Your task to perform on an android device: turn on the 12-hour format for clock Image 0: 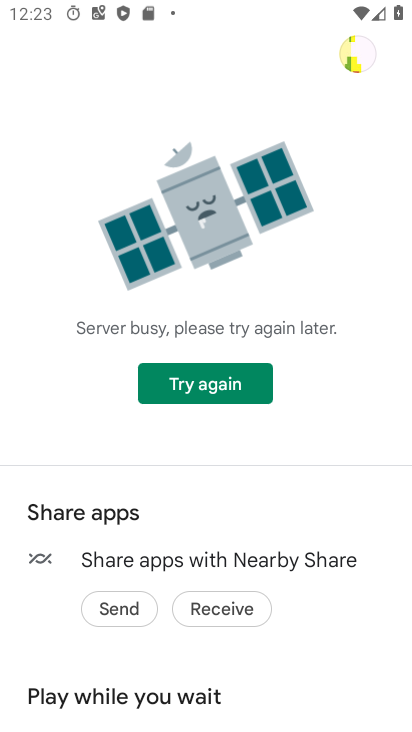
Step 0: press home button
Your task to perform on an android device: turn on the 12-hour format for clock Image 1: 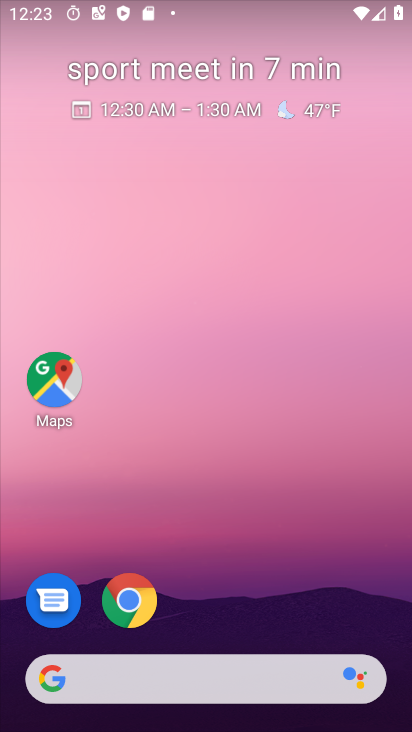
Step 1: drag from (197, 583) to (288, 35)
Your task to perform on an android device: turn on the 12-hour format for clock Image 2: 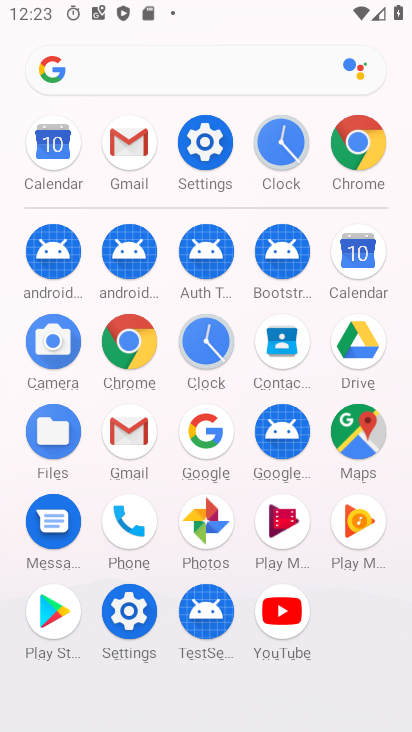
Step 2: click (278, 135)
Your task to perform on an android device: turn on the 12-hour format for clock Image 3: 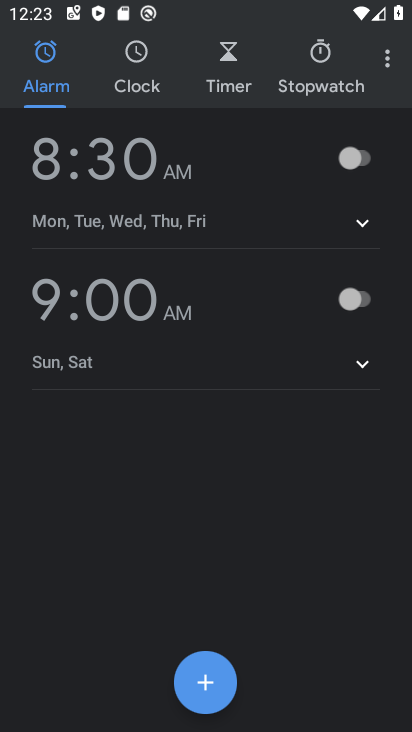
Step 3: click (390, 62)
Your task to perform on an android device: turn on the 12-hour format for clock Image 4: 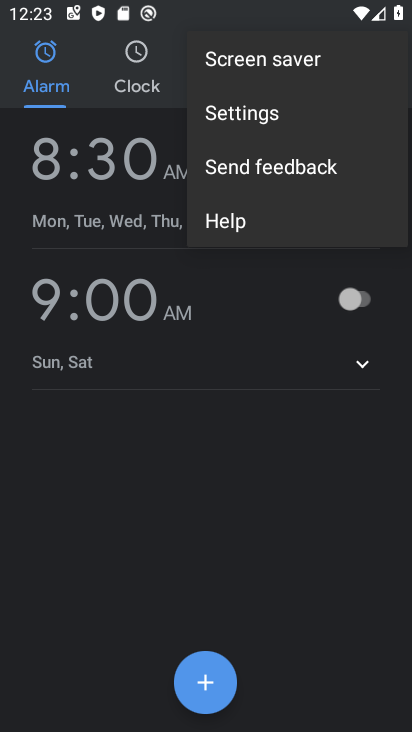
Step 4: click (258, 116)
Your task to perform on an android device: turn on the 12-hour format for clock Image 5: 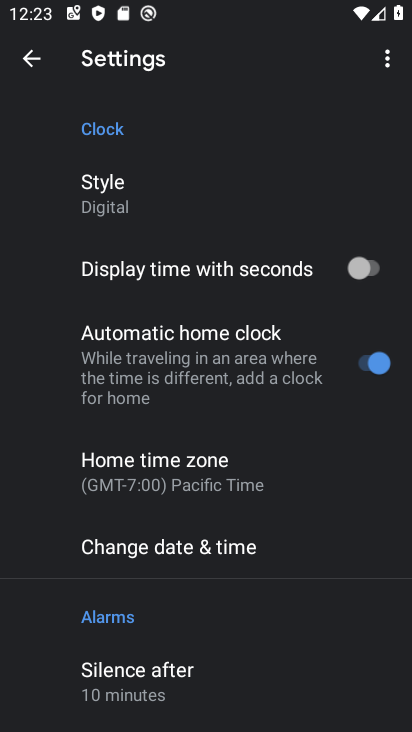
Step 5: click (137, 540)
Your task to perform on an android device: turn on the 12-hour format for clock Image 6: 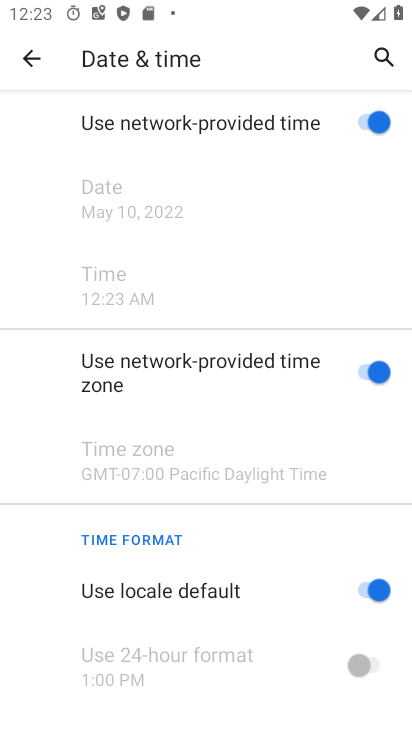
Step 6: task complete